Your task to perform on an android device: turn off smart reply in the gmail app Image 0: 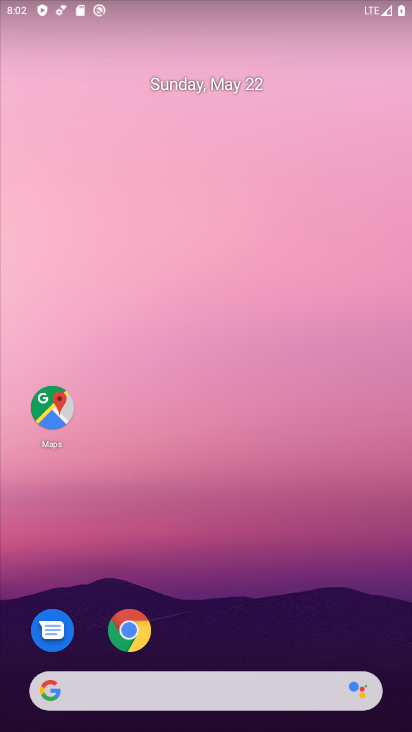
Step 0: drag from (390, 648) to (320, 9)
Your task to perform on an android device: turn off smart reply in the gmail app Image 1: 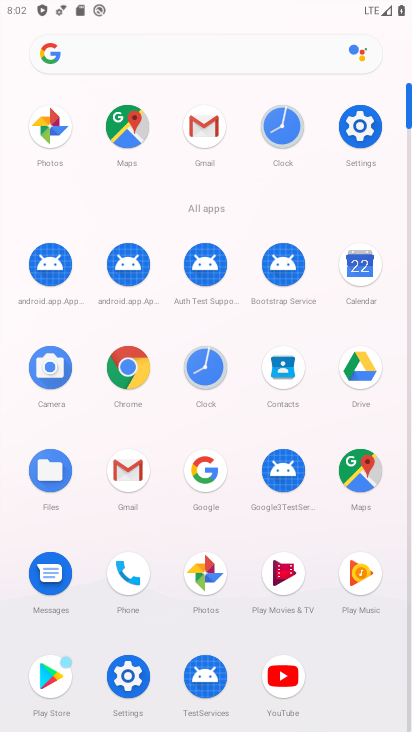
Step 1: click (124, 471)
Your task to perform on an android device: turn off smart reply in the gmail app Image 2: 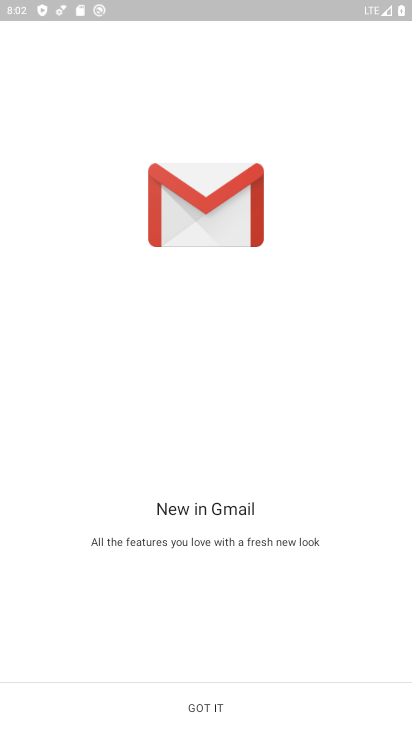
Step 2: click (203, 707)
Your task to perform on an android device: turn off smart reply in the gmail app Image 3: 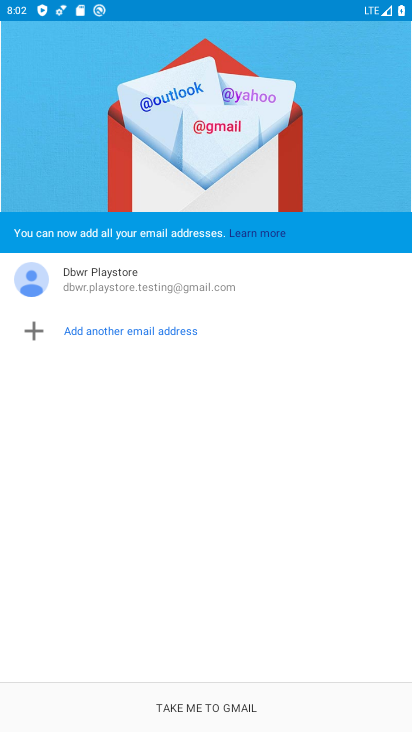
Step 3: click (203, 707)
Your task to perform on an android device: turn off smart reply in the gmail app Image 4: 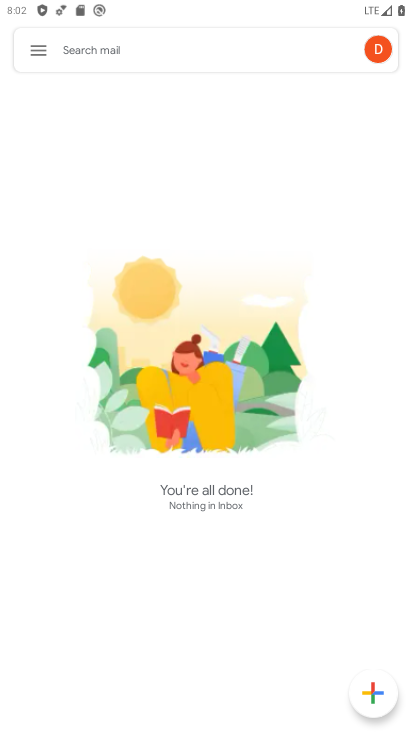
Step 4: click (35, 52)
Your task to perform on an android device: turn off smart reply in the gmail app Image 5: 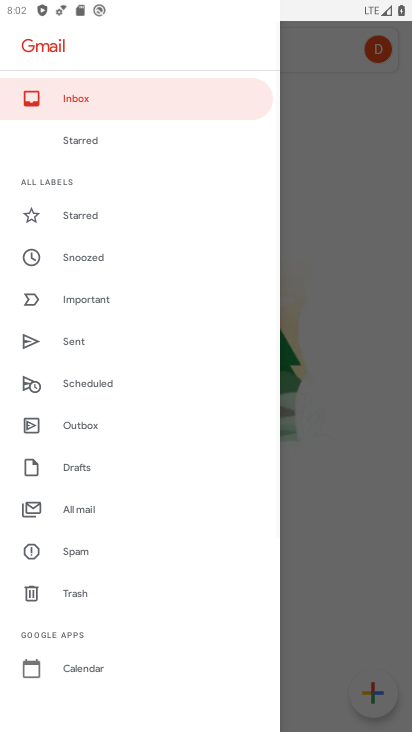
Step 5: drag from (141, 646) to (163, 206)
Your task to perform on an android device: turn off smart reply in the gmail app Image 6: 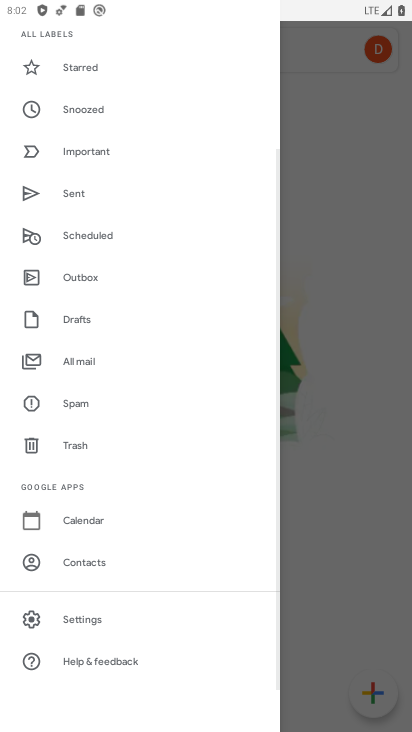
Step 6: click (73, 619)
Your task to perform on an android device: turn off smart reply in the gmail app Image 7: 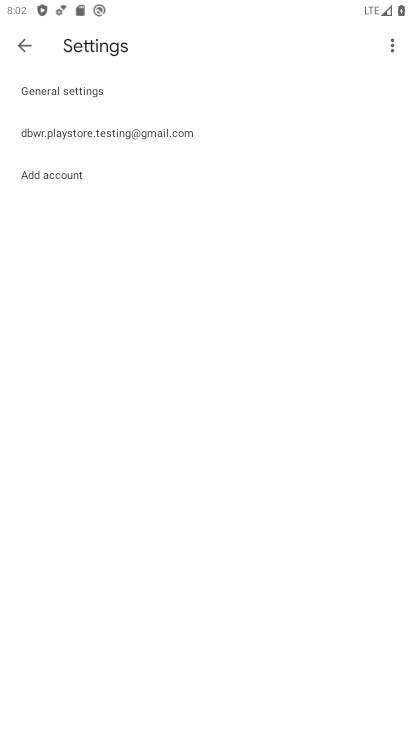
Step 7: click (102, 132)
Your task to perform on an android device: turn off smart reply in the gmail app Image 8: 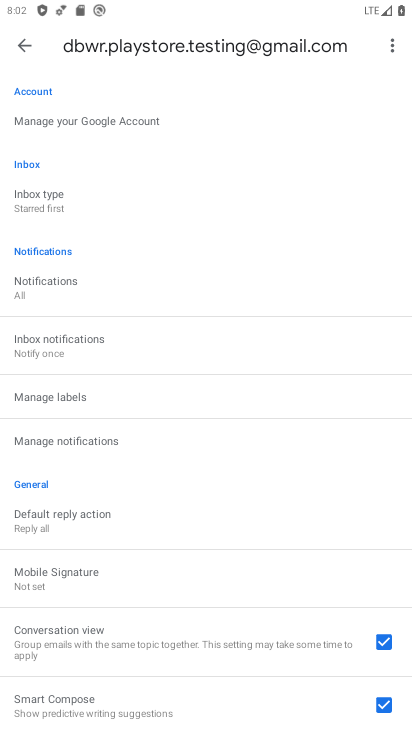
Step 8: drag from (174, 625) to (211, 147)
Your task to perform on an android device: turn off smart reply in the gmail app Image 9: 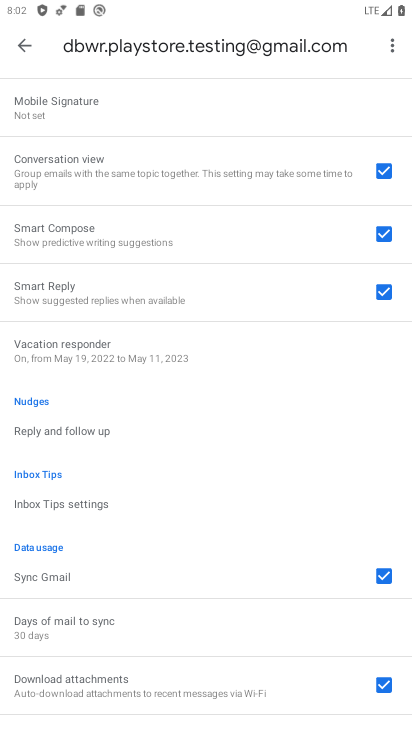
Step 9: click (382, 288)
Your task to perform on an android device: turn off smart reply in the gmail app Image 10: 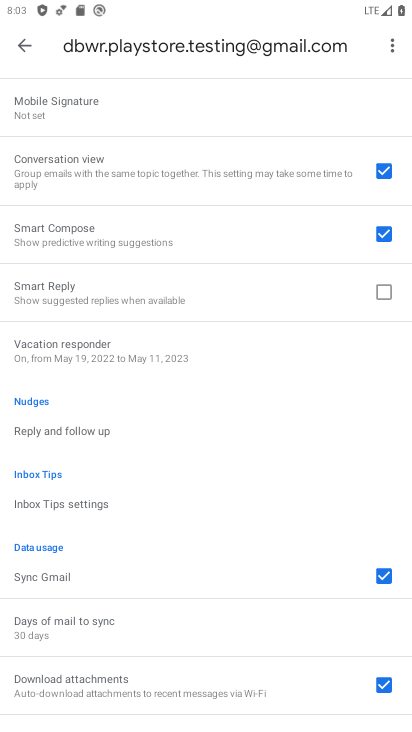
Step 10: task complete